Your task to perform on an android device: Open the map Image 0: 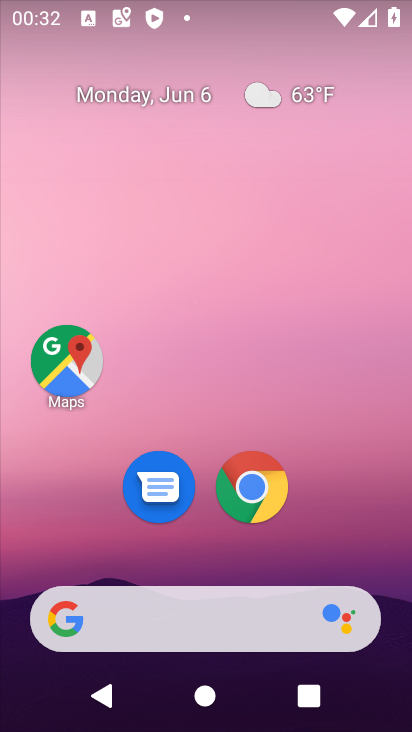
Step 0: click (69, 356)
Your task to perform on an android device: Open the map Image 1: 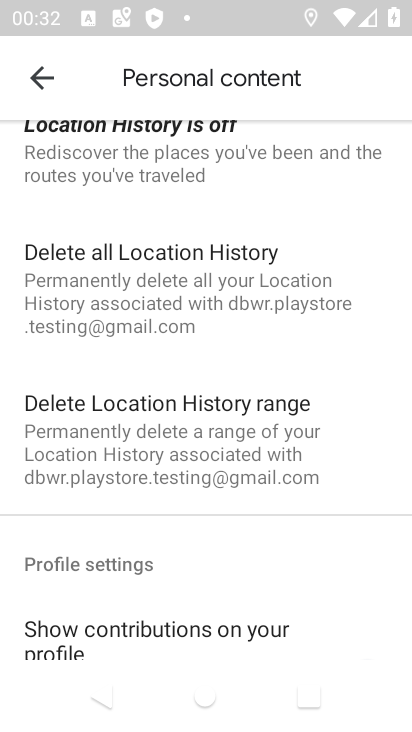
Step 1: task complete